Your task to perform on an android device: Open sound settings Image 0: 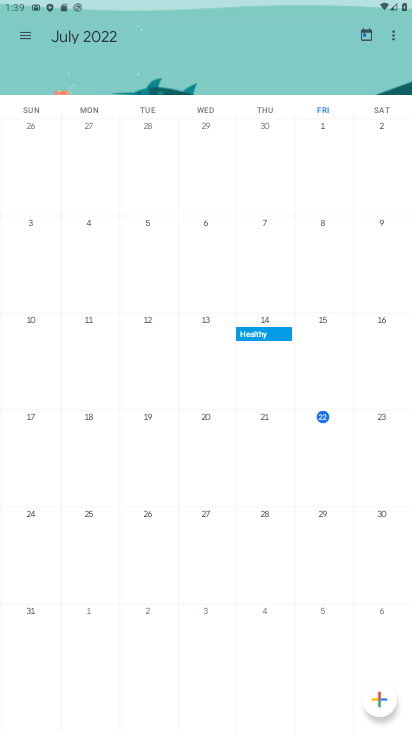
Step 0: press home button
Your task to perform on an android device: Open sound settings Image 1: 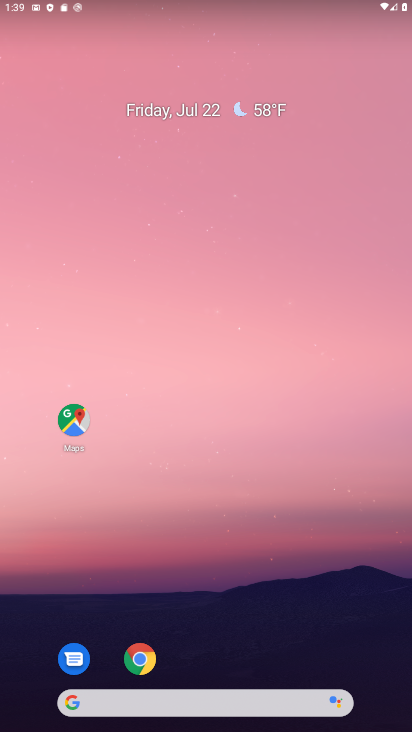
Step 1: drag from (198, 674) to (202, 93)
Your task to perform on an android device: Open sound settings Image 2: 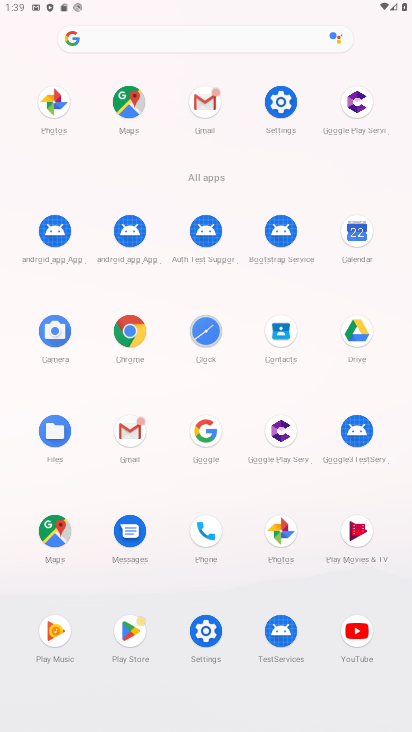
Step 2: click (266, 89)
Your task to perform on an android device: Open sound settings Image 3: 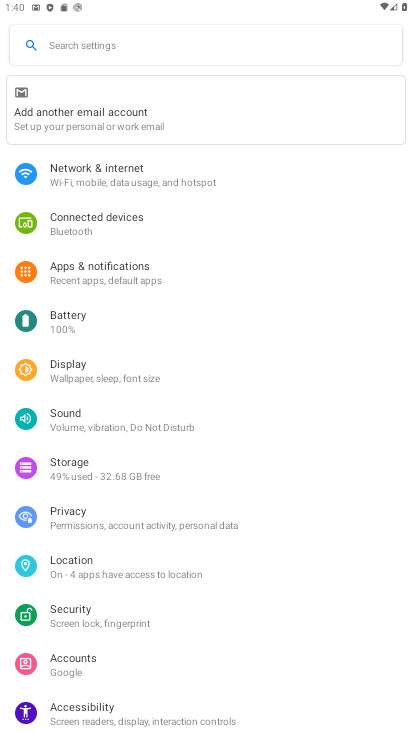
Step 3: click (89, 376)
Your task to perform on an android device: Open sound settings Image 4: 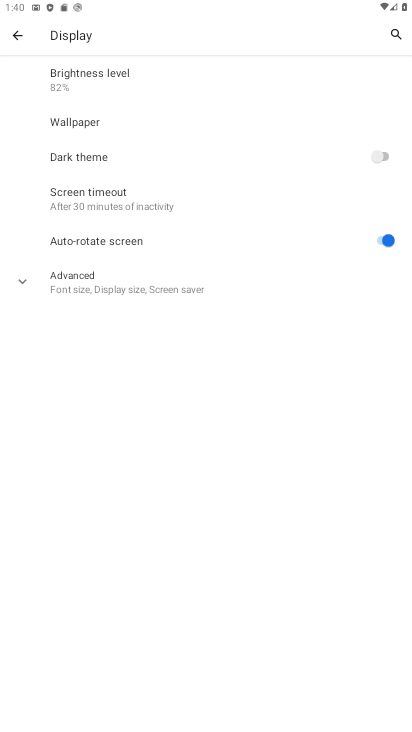
Step 4: click (24, 38)
Your task to perform on an android device: Open sound settings Image 5: 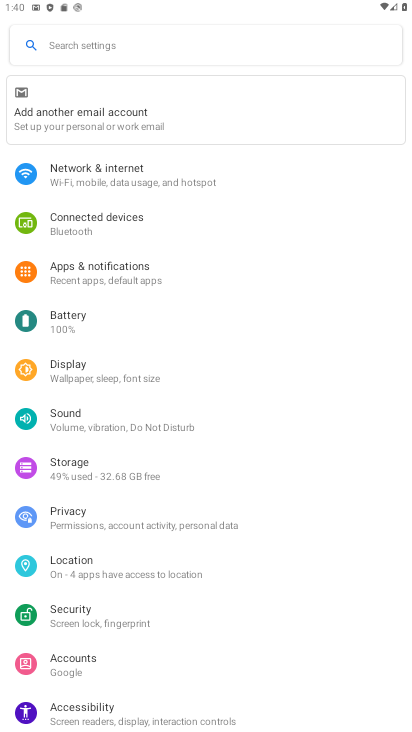
Step 5: click (92, 412)
Your task to perform on an android device: Open sound settings Image 6: 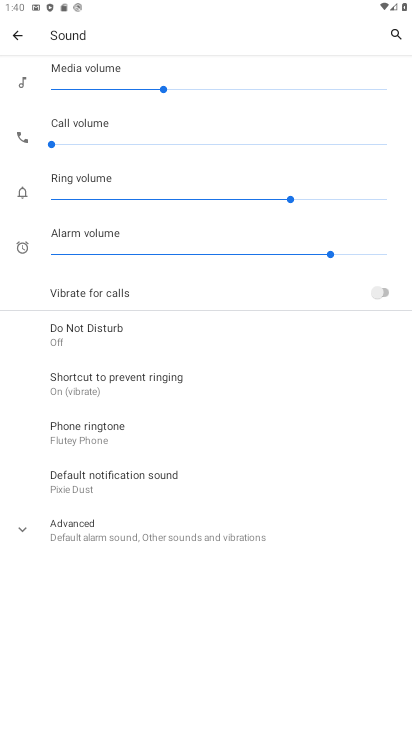
Step 6: task complete